Your task to perform on an android device: Open privacy settings Image 0: 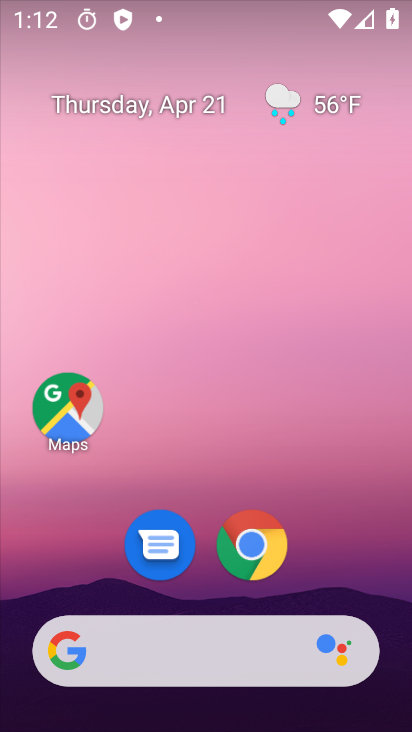
Step 0: drag from (198, 667) to (346, 64)
Your task to perform on an android device: Open privacy settings Image 1: 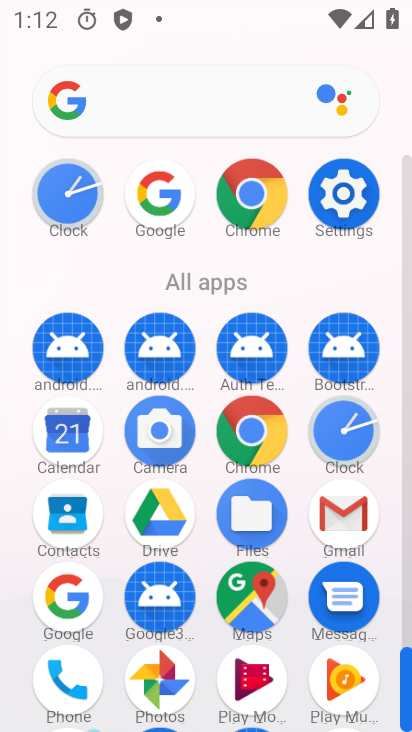
Step 1: click (345, 192)
Your task to perform on an android device: Open privacy settings Image 2: 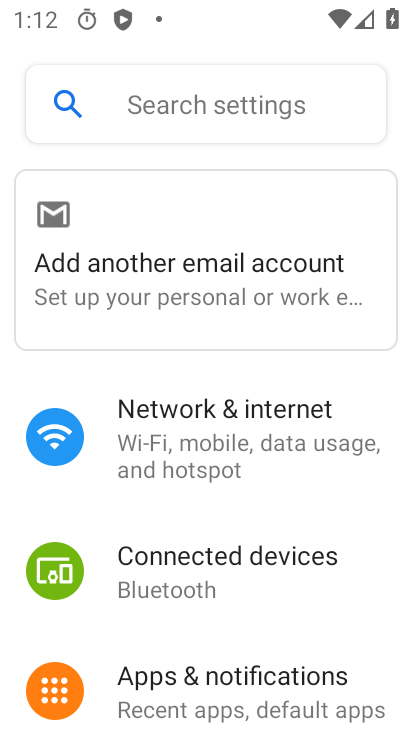
Step 2: drag from (188, 668) to (347, 135)
Your task to perform on an android device: Open privacy settings Image 3: 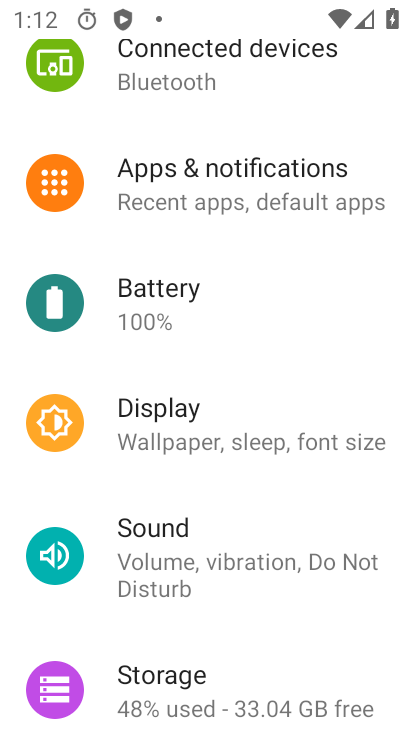
Step 3: drag from (158, 617) to (353, 47)
Your task to perform on an android device: Open privacy settings Image 4: 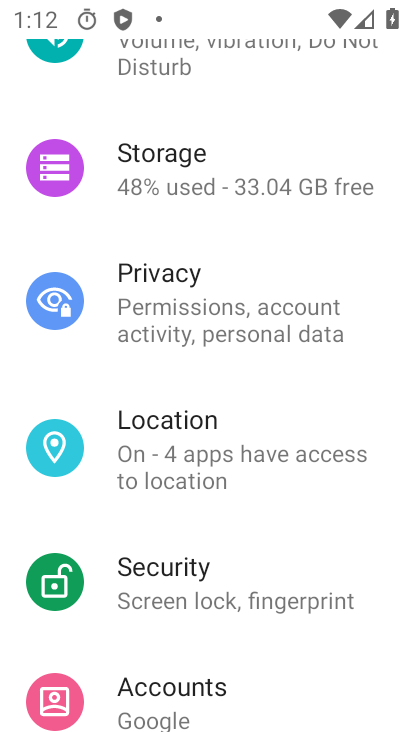
Step 4: click (161, 276)
Your task to perform on an android device: Open privacy settings Image 5: 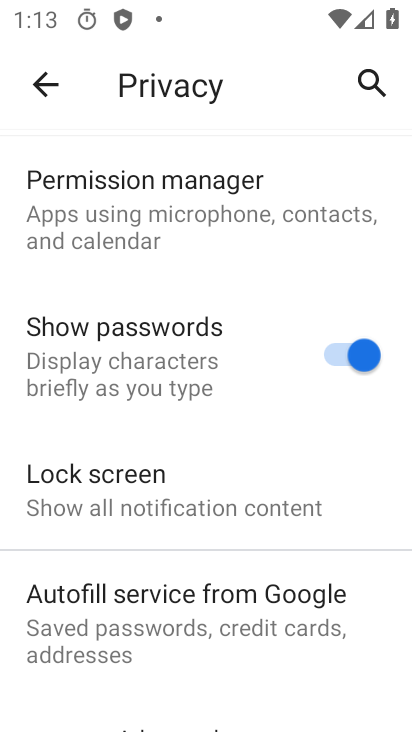
Step 5: task complete